Your task to perform on an android device: snooze an email in the gmail app Image 0: 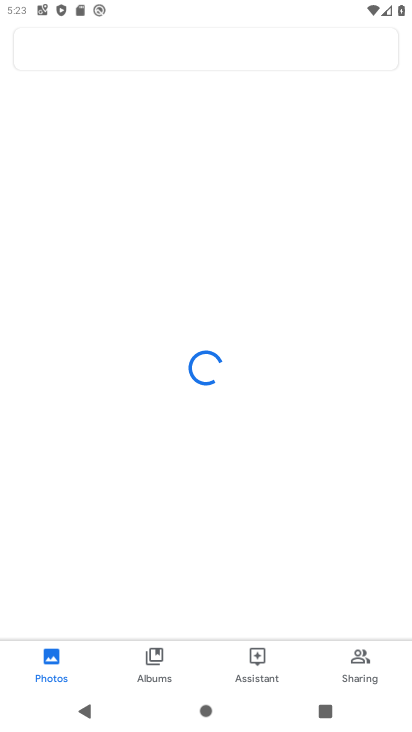
Step 0: press home button
Your task to perform on an android device: snooze an email in the gmail app Image 1: 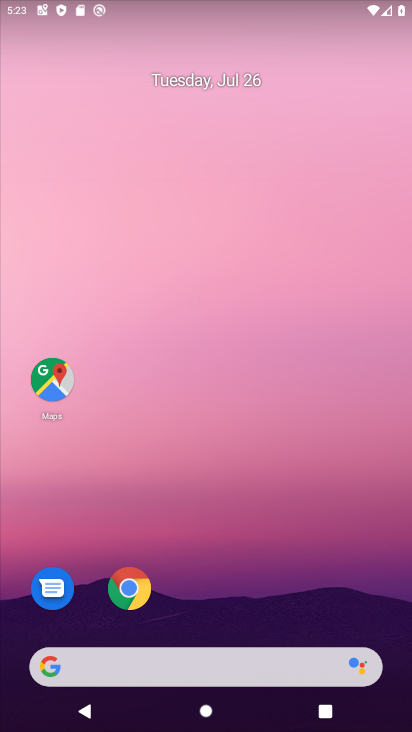
Step 1: drag from (236, 620) to (236, 190)
Your task to perform on an android device: snooze an email in the gmail app Image 2: 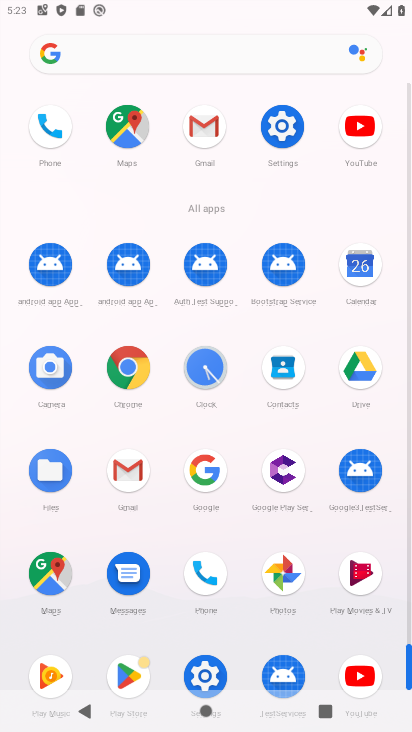
Step 2: click (127, 479)
Your task to perform on an android device: snooze an email in the gmail app Image 3: 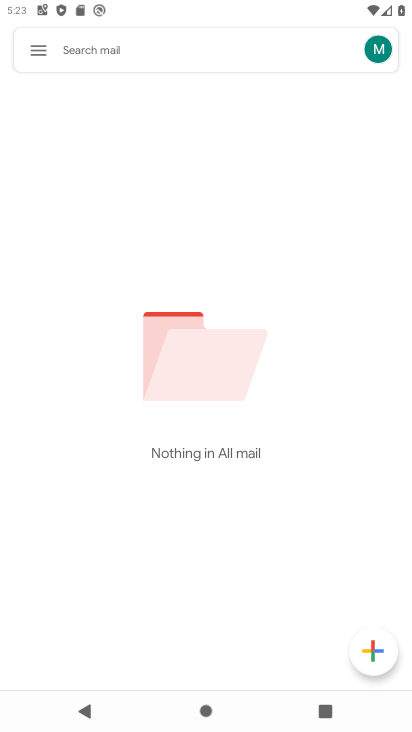
Step 3: click (35, 55)
Your task to perform on an android device: snooze an email in the gmail app Image 4: 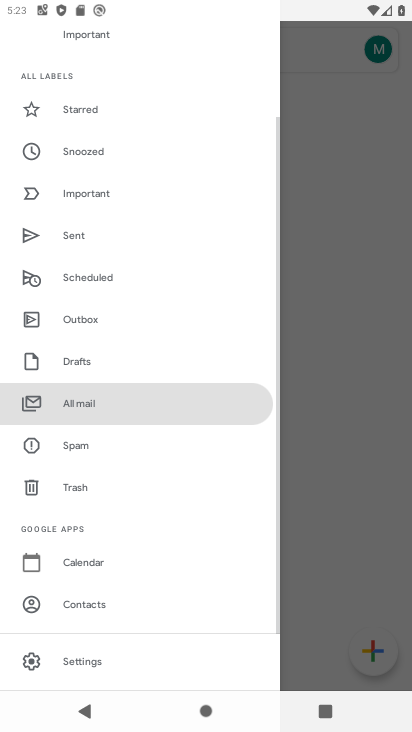
Step 4: click (107, 408)
Your task to perform on an android device: snooze an email in the gmail app Image 5: 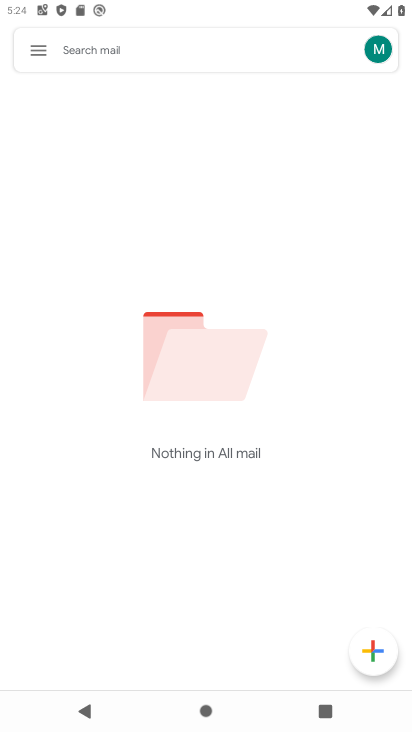
Step 5: task complete